Your task to perform on an android device: Open notification settings Image 0: 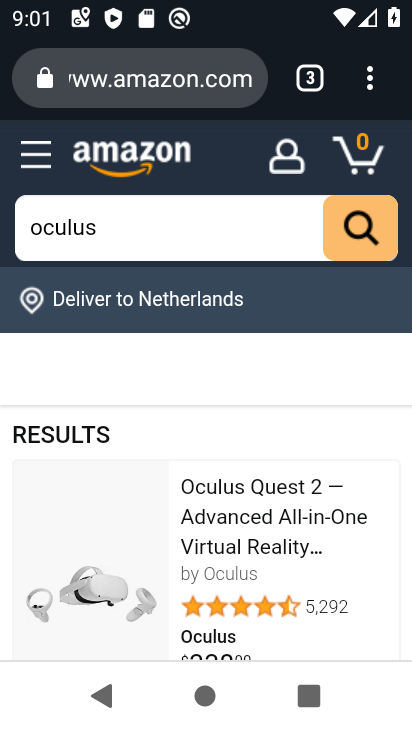
Step 0: press home button
Your task to perform on an android device: Open notification settings Image 1: 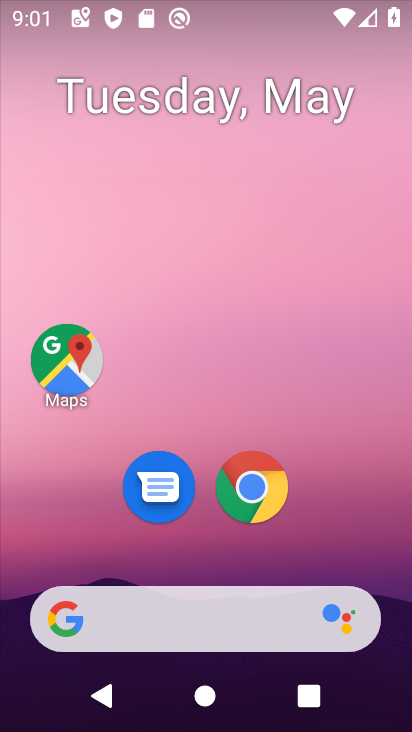
Step 1: drag from (377, 563) to (363, 192)
Your task to perform on an android device: Open notification settings Image 2: 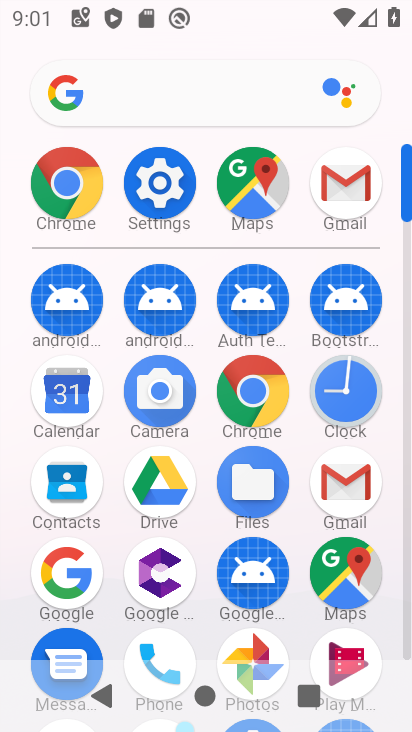
Step 2: click (173, 202)
Your task to perform on an android device: Open notification settings Image 3: 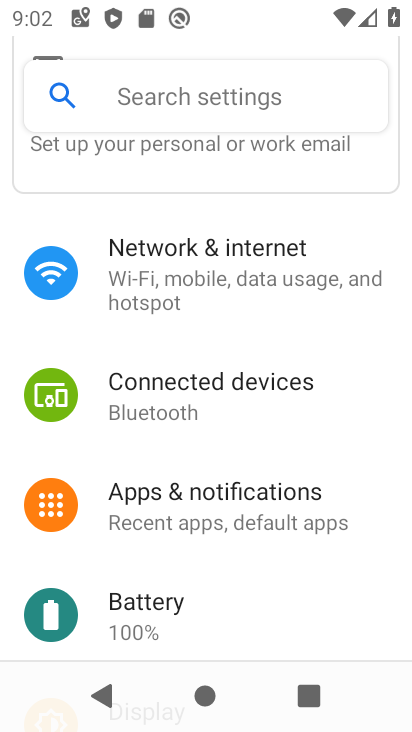
Step 3: drag from (357, 463) to (357, 341)
Your task to perform on an android device: Open notification settings Image 4: 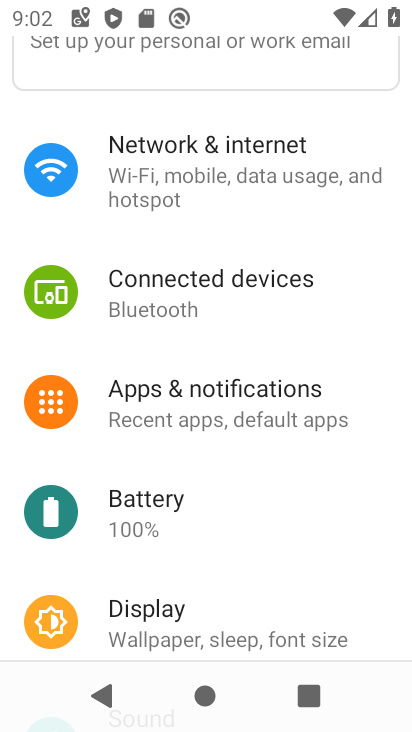
Step 4: click (300, 412)
Your task to perform on an android device: Open notification settings Image 5: 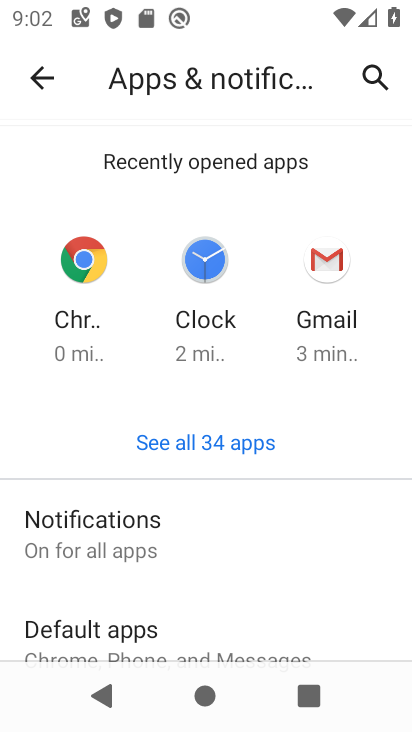
Step 5: click (105, 541)
Your task to perform on an android device: Open notification settings Image 6: 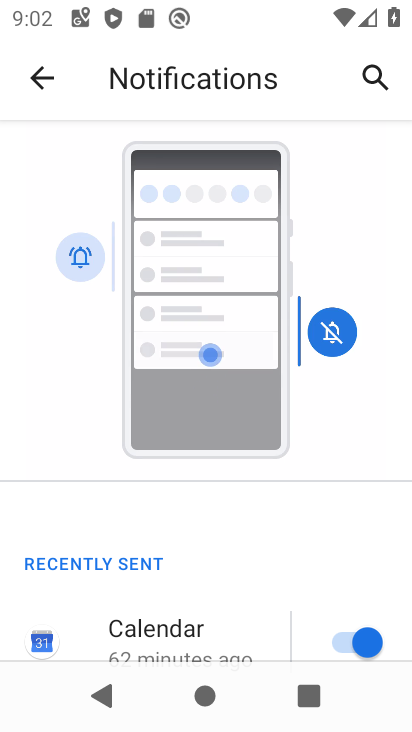
Step 6: task complete